Your task to perform on an android device: turn off data saver in the chrome app Image 0: 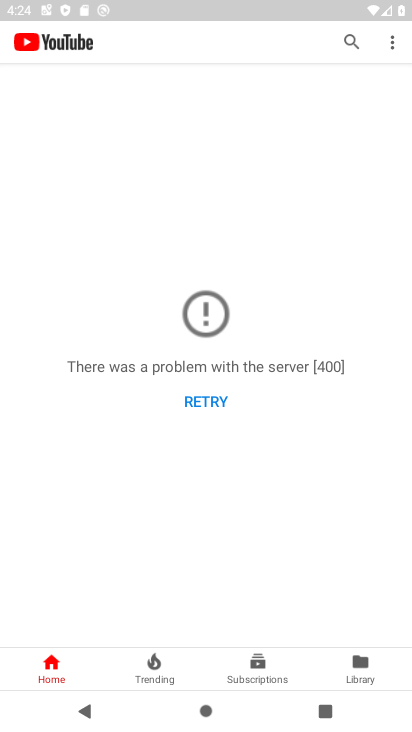
Step 0: press back button
Your task to perform on an android device: turn off data saver in the chrome app Image 1: 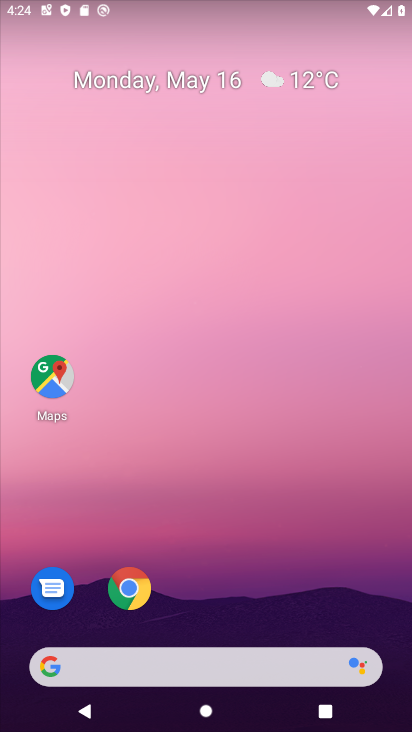
Step 1: click (138, 592)
Your task to perform on an android device: turn off data saver in the chrome app Image 2: 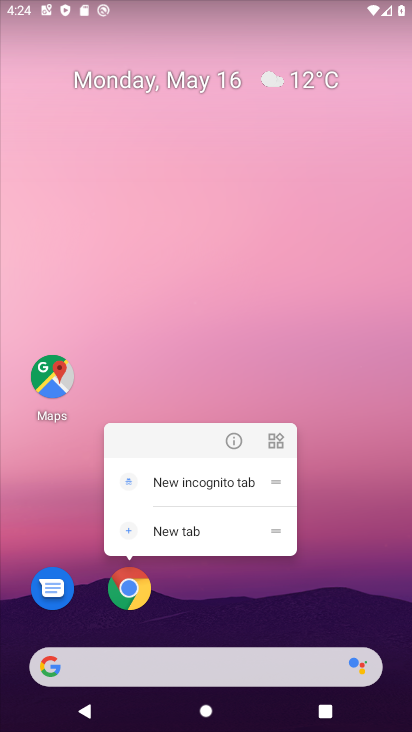
Step 2: click (139, 584)
Your task to perform on an android device: turn off data saver in the chrome app Image 3: 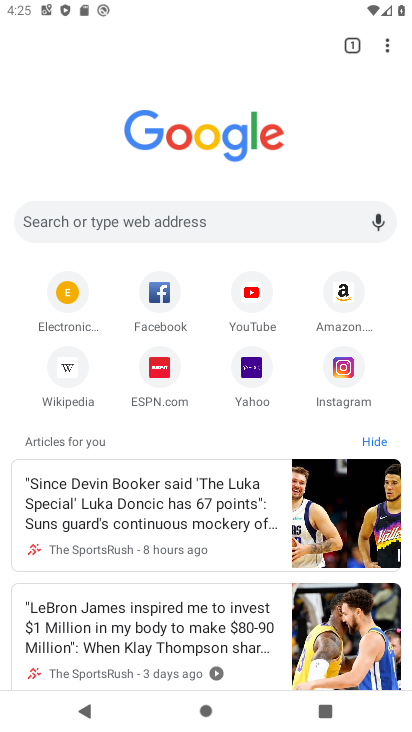
Step 3: drag from (382, 54) to (219, 436)
Your task to perform on an android device: turn off data saver in the chrome app Image 4: 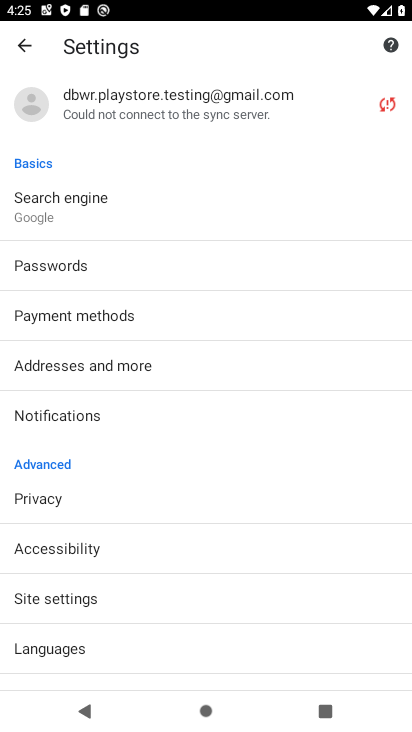
Step 4: drag from (157, 606) to (186, 222)
Your task to perform on an android device: turn off data saver in the chrome app Image 5: 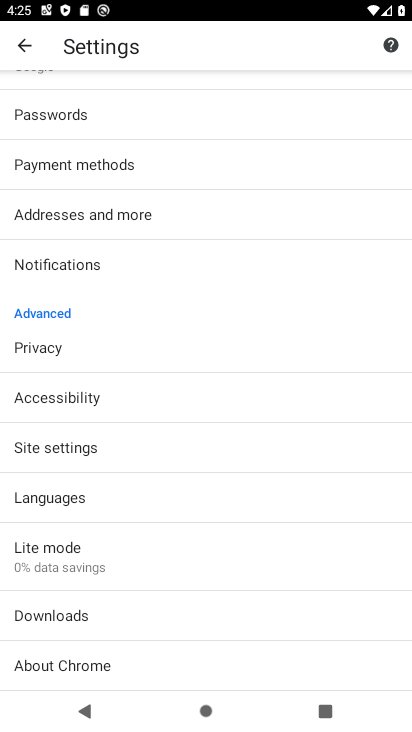
Step 5: click (121, 559)
Your task to perform on an android device: turn off data saver in the chrome app Image 6: 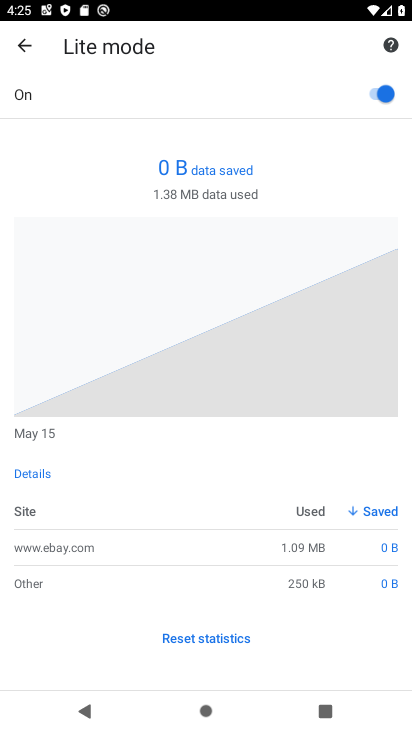
Step 6: click (376, 94)
Your task to perform on an android device: turn off data saver in the chrome app Image 7: 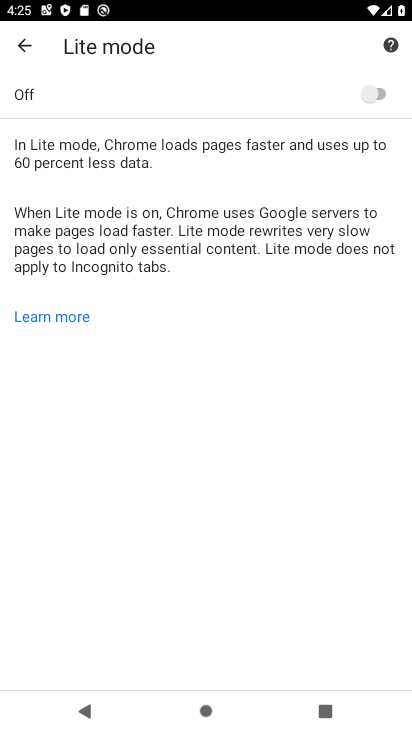
Step 7: task complete